Your task to perform on an android device: Search for pizza restaurants on Maps Image 0: 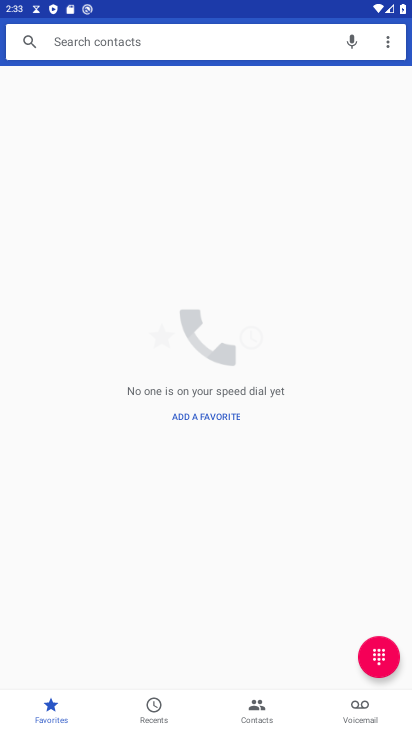
Step 0: press home button
Your task to perform on an android device: Search for pizza restaurants on Maps Image 1: 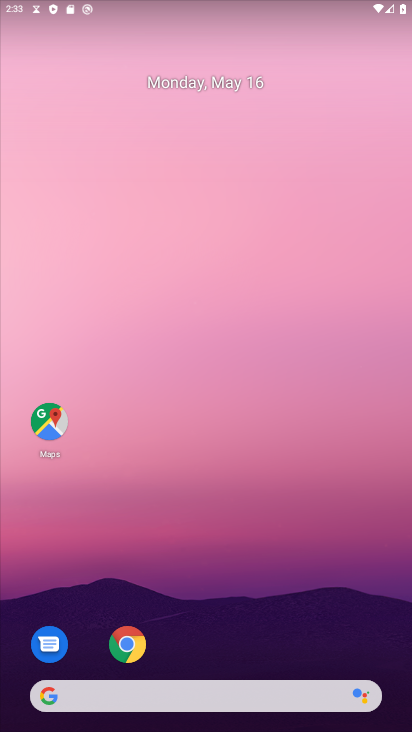
Step 1: click (45, 435)
Your task to perform on an android device: Search for pizza restaurants on Maps Image 2: 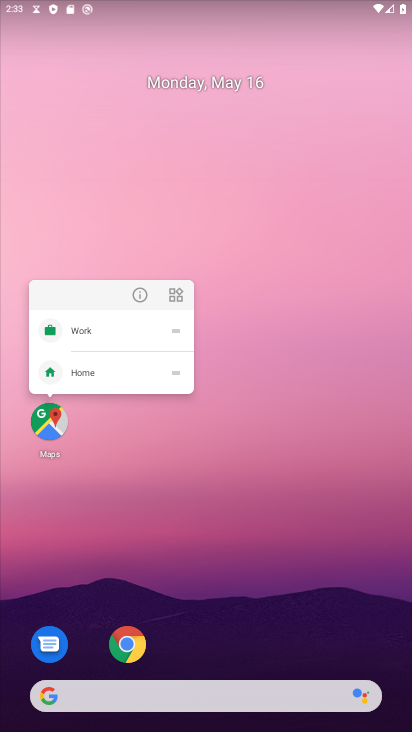
Step 2: click (52, 426)
Your task to perform on an android device: Search for pizza restaurants on Maps Image 3: 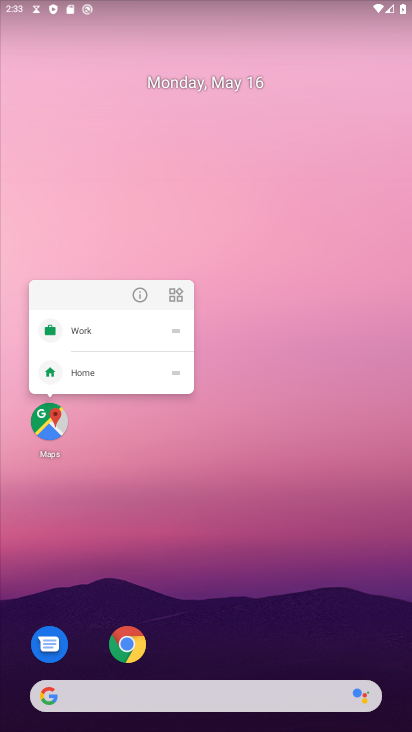
Step 3: click (63, 437)
Your task to perform on an android device: Search for pizza restaurants on Maps Image 4: 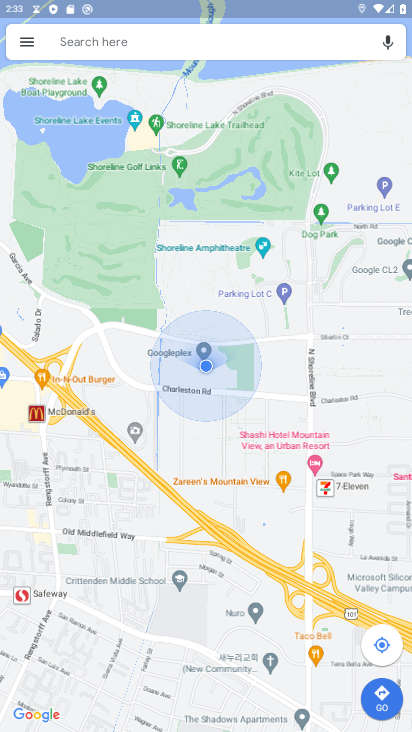
Step 4: click (101, 41)
Your task to perform on an android device: Search for pizza restaurants on Maps Image 5: 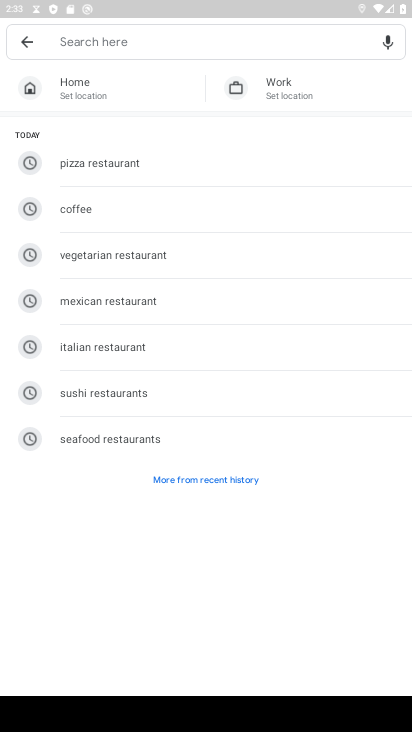
Step 5: click (97, 168)
Your task to perform on an android device: Search for pizza restaurants on Maps Image 6: 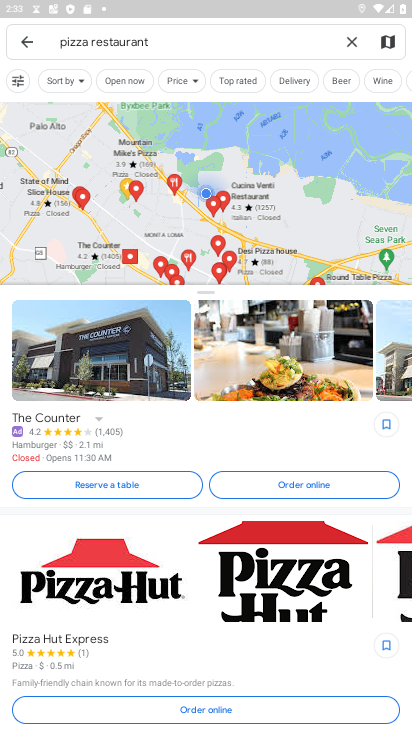
Step 6: task complete